Your task to perform on an android device: What is the news today? Image 0: 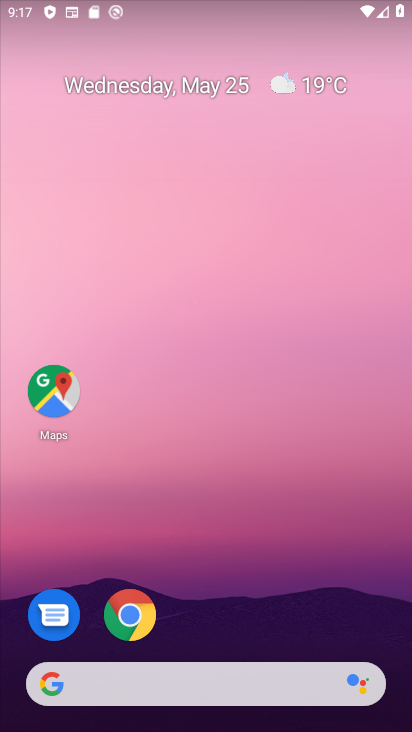
Step 0: drag from (253, 700) to (294, 137)
Your task to perform on an android device: What is the news today? Image 1: 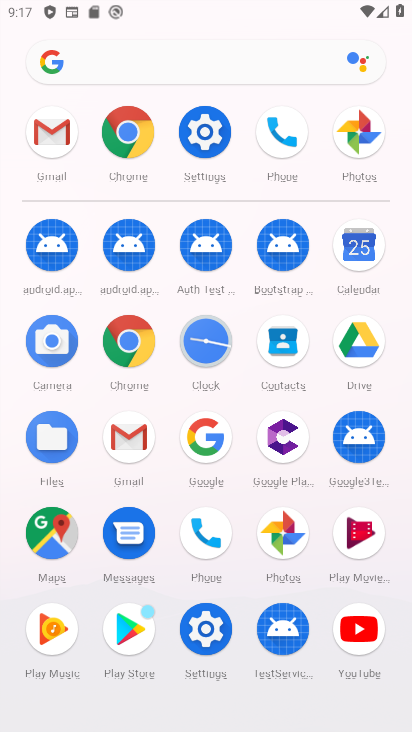
Step 1: click (121, 70)
Your task to perform on an android device: What is the news today? Image 2: 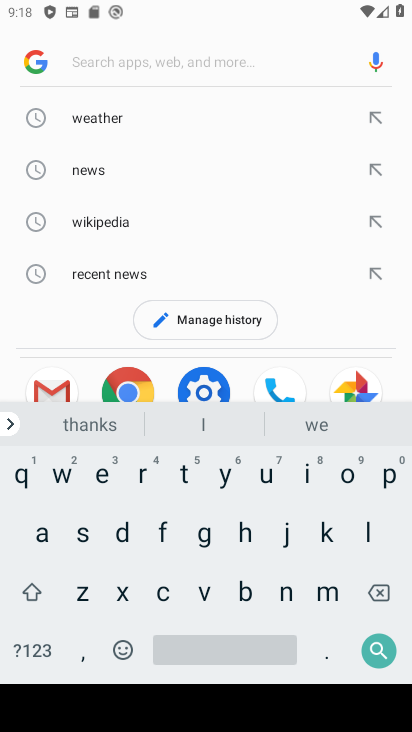
Step 2: click (107, 174)
Your task to perform on an android device: What is the news today? Image 3: 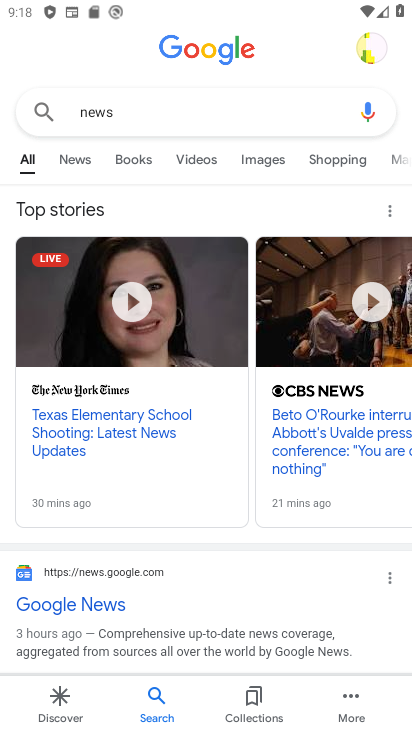
Step 3: task complete